Your task to perform on an android device: Open the map Image 0: 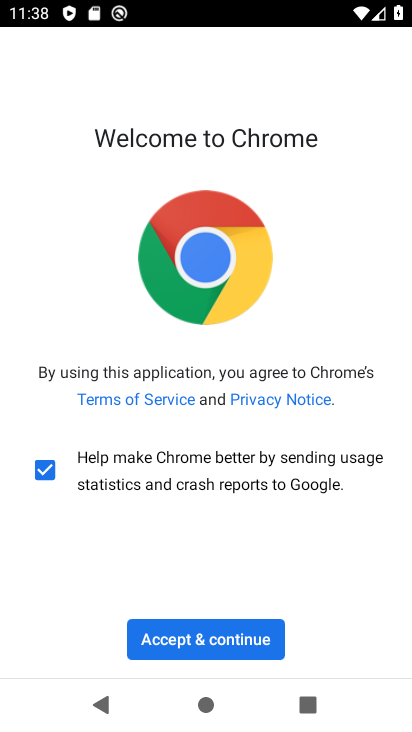
Step 0: click (258, 648)
Your task to perform on an android device: Open the map Image 1: 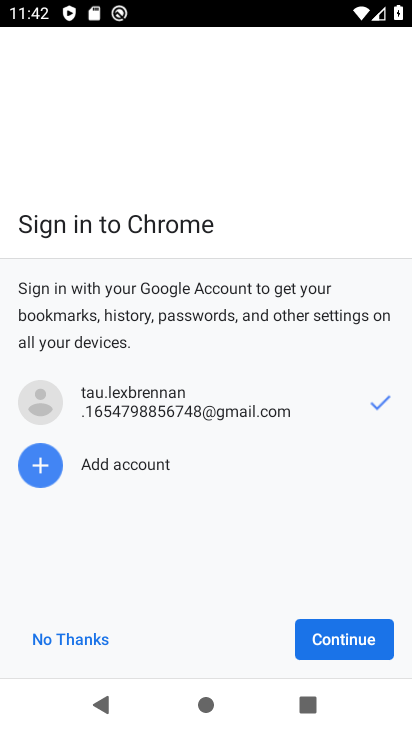
Step 1: press home button
Your task to perform on an android device: Open the map Image 2: 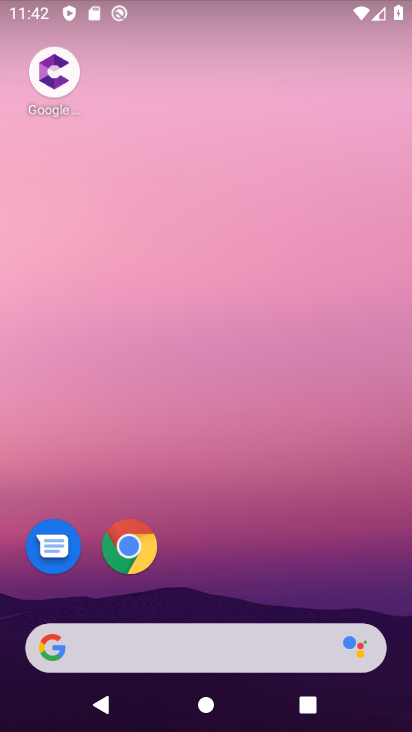
Step 2: drag from (229, 542) to (175, 2)
Your task to perform on an android device: Open the map Image 3: 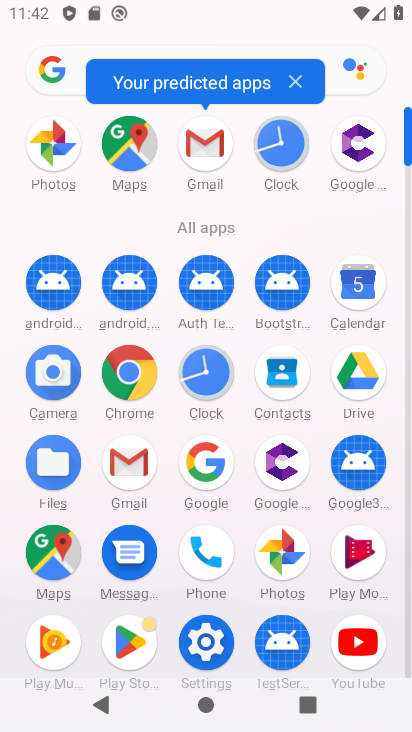
Step 3: click (62, 560)
Your task to perform on an android device: Open the map Image 4: 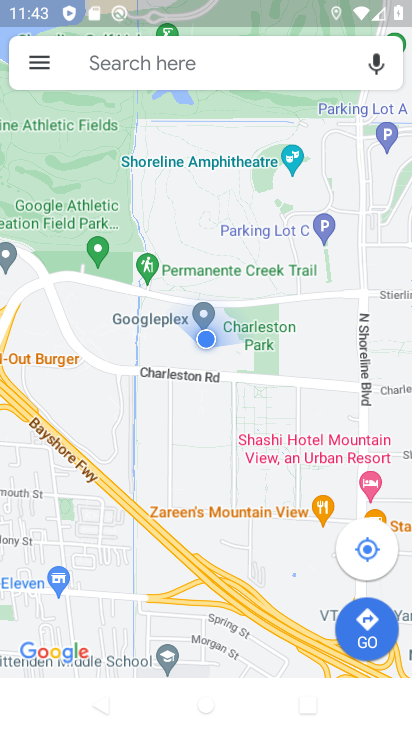
Step 4: task complete